Your task to perform on an android device: Is it going to rain today? Image 0: 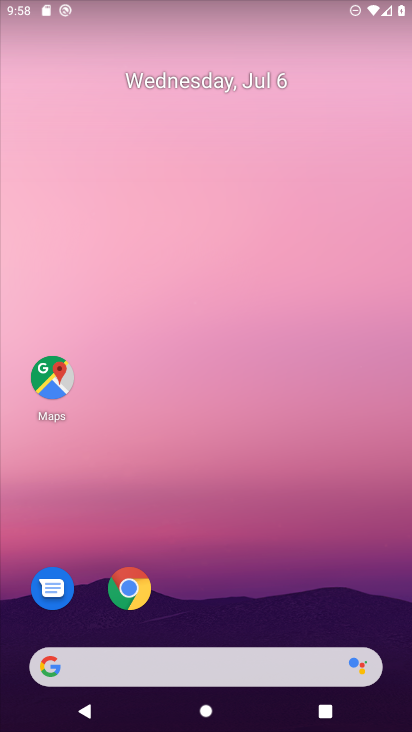
Step 0: drag from (296, 611) to (351, 47)
Your task to perform on an android device: Is it going to rain today? Image 1: 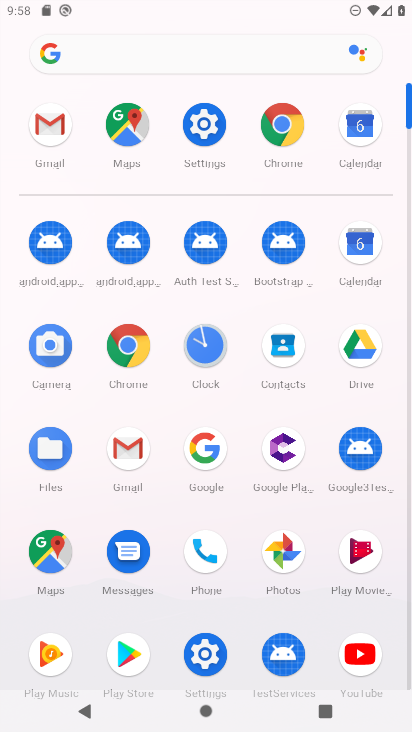
Step 1: press back button
Your task to perform on an android device: Is it going to rain today? Image 2: 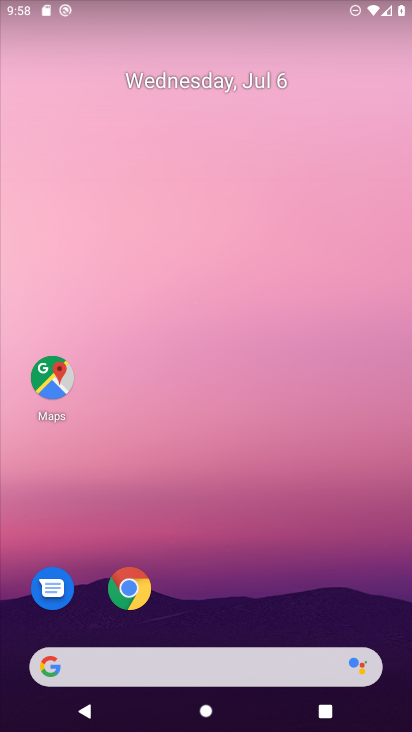
Step 2: click (147, 671)
Your task to perform on an android device: Is it going to rain today? Image 3: 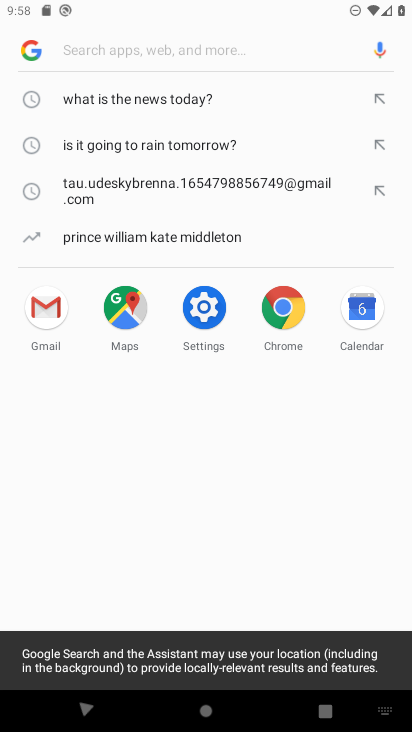
Step 3: click (148, 55)
Your task to perform on an android device: Is it going to rain today? Image 4: 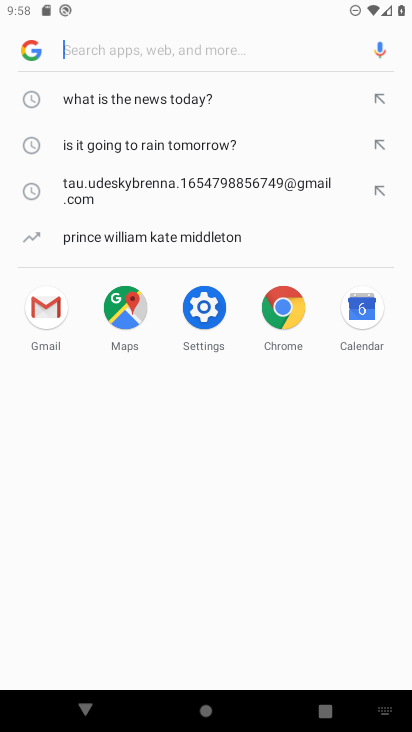
Step 4: type "Is it going to rain today?"
Your task to perform on an android device: Is it going to rain today? Image 5: 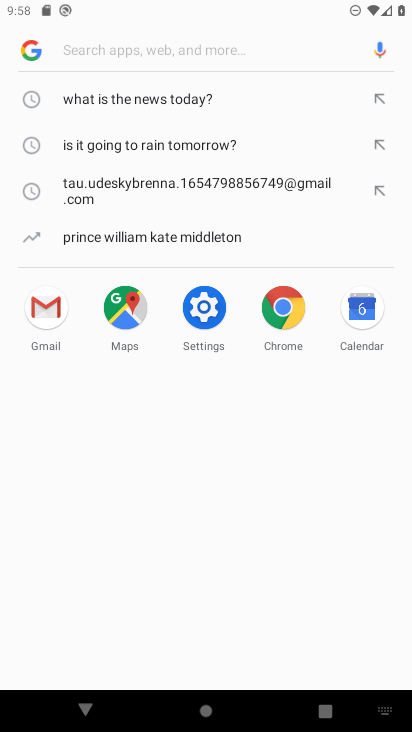
Step 5: click (259, 458)
Your task to perform on an android device: Is it going to rain today? Image 6: 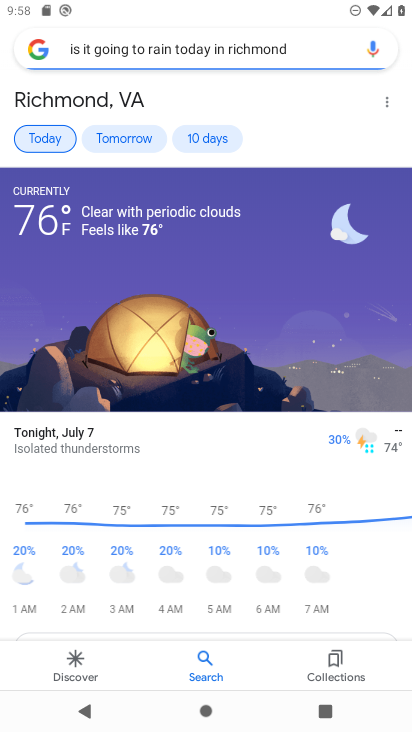
Step 6: click (333, 40)
Your task to perform on an android device: Is it going to rain today? Image 7: 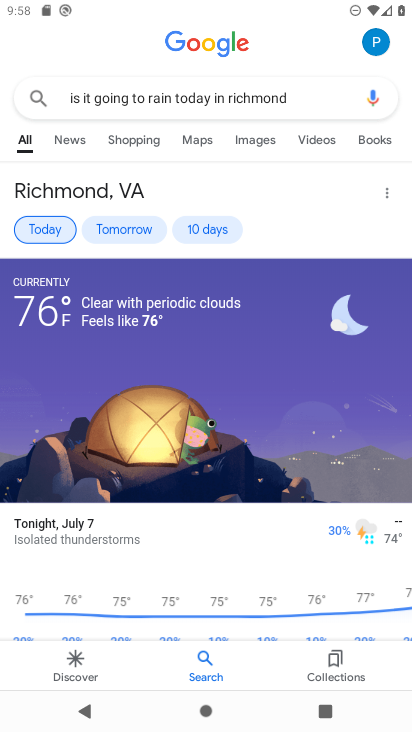
Step 7: click (320, 94)
Your task to perform on an android device: Is it going to rain today? Image 8: 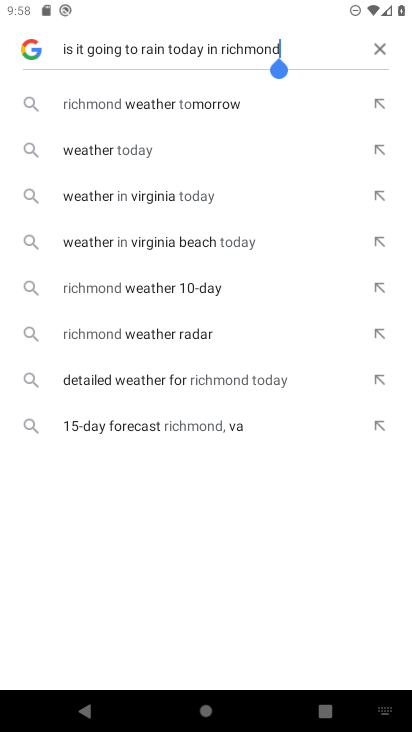
Step 8: click (378, 46)
Your task to perform on an android device: Is it going to rain today? Image 9: 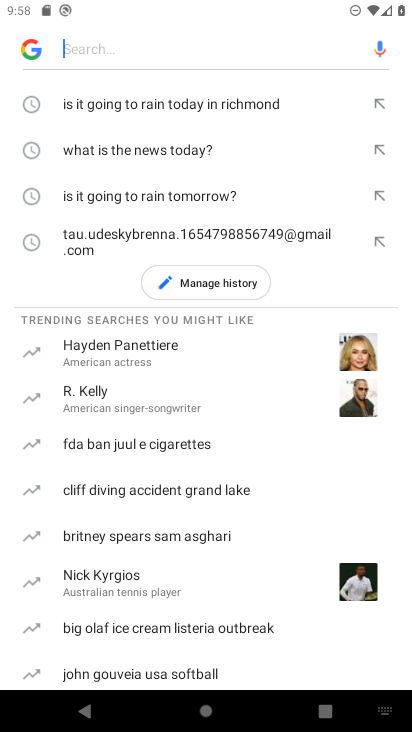
Step 9: click (178, 53)
Your task to perform on an android device: Is it going to rain today? Image 10: 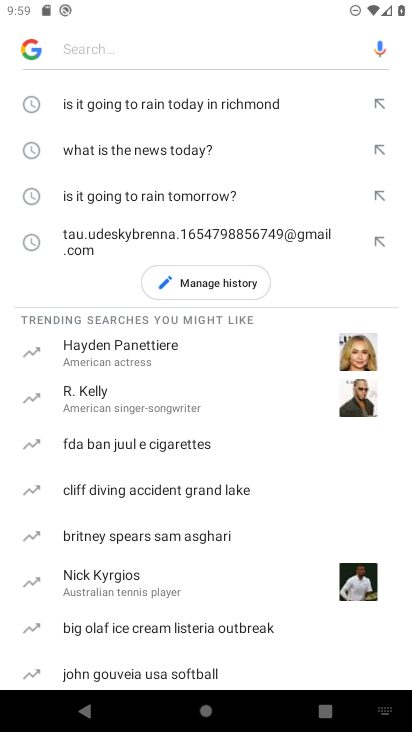
Step 10: type "wheather"
Your task to perform on an android device: Is it going to rain today? Image 11: 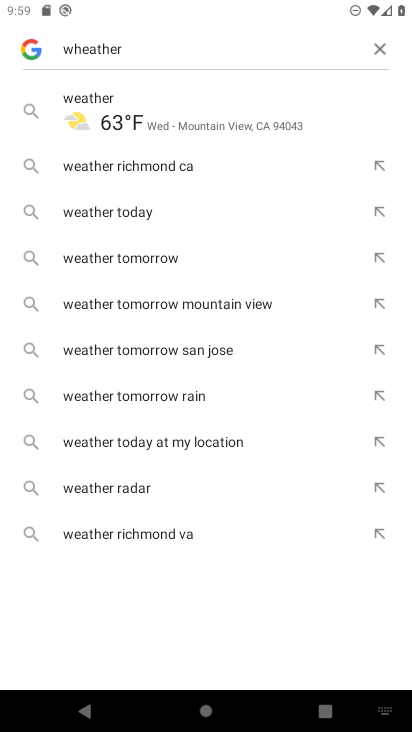
Step 11: click (178, 109)
Your task to perform on an android device: Is it going to rain today? Image 12: 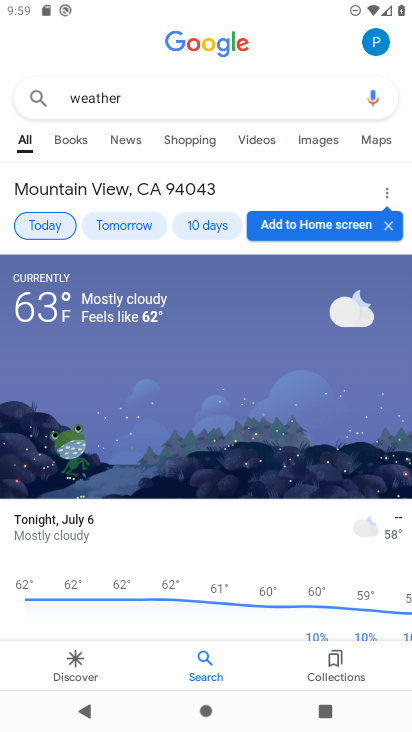
Step 12: task complete